Your task to perform on an android device: Empty the shopping cart on bestbuy.com. Search for "asus rog" on bestbuy.com, select the first entry, and add it to the cart. Image 0: 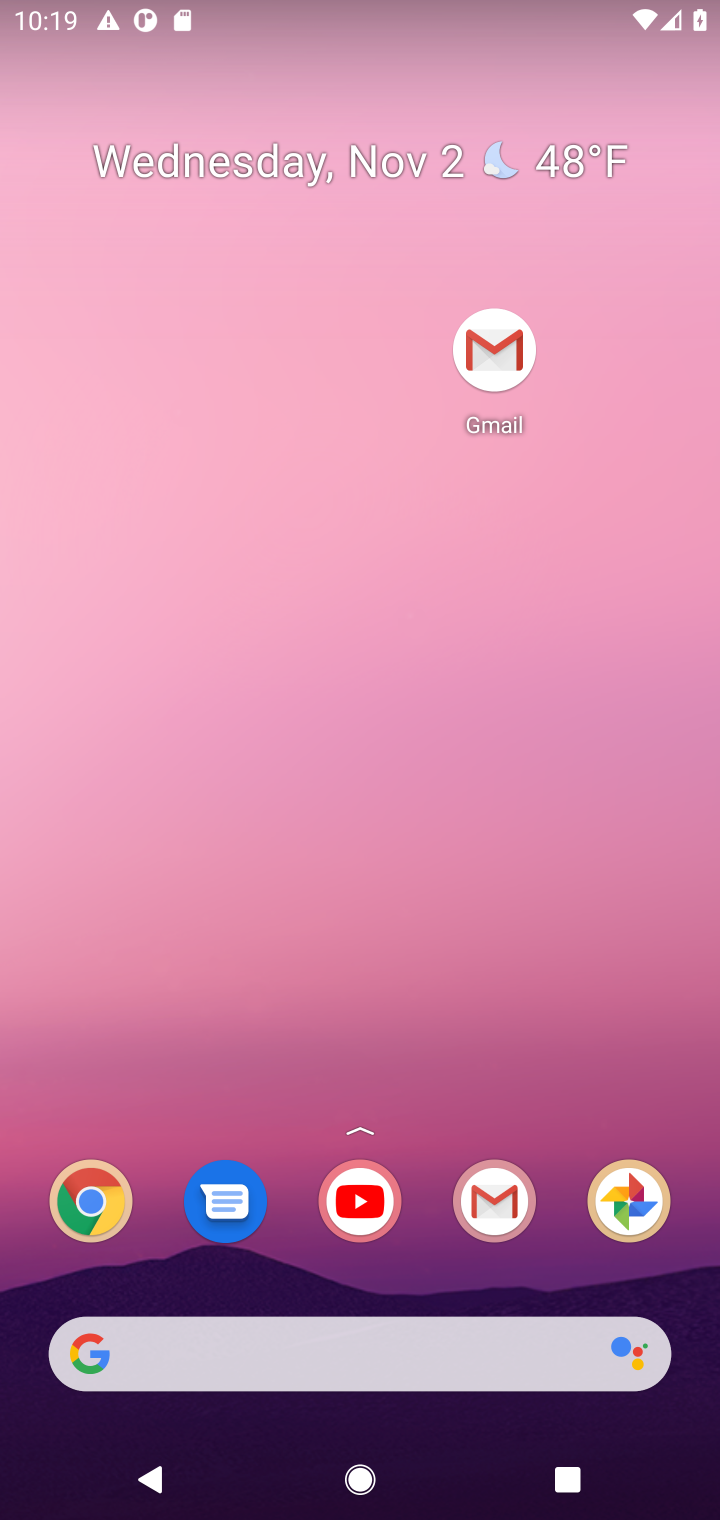
Step 0: drag from (423, 1276) to (303, 219)
Your task to perform on an android device: Empty the shopping cart on bestbuy.com. Search for "asus rog" on bestbuy.com, select the first entry, and add it to the cart. Image 1: 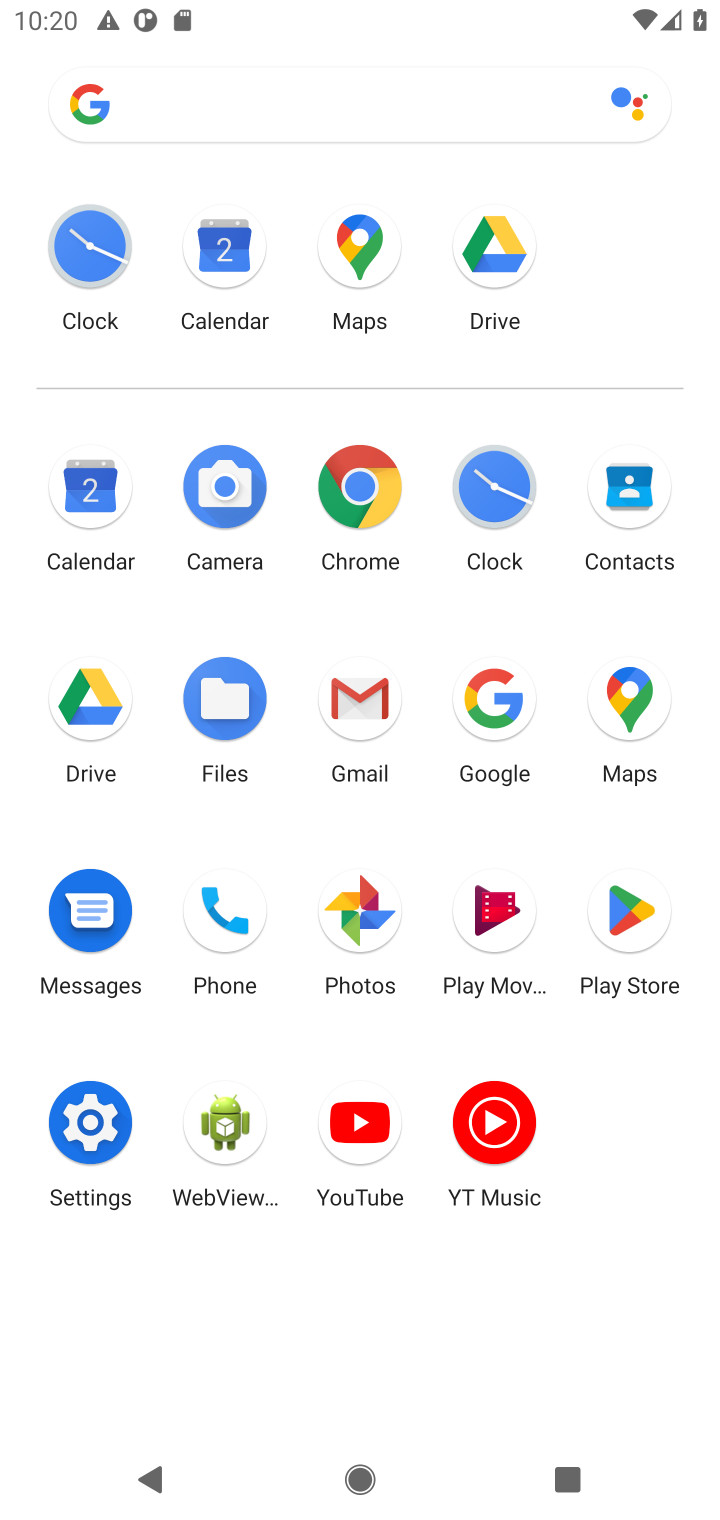
Step 1: click (366, 482)
Your task to perform on an android device: Empty the shopping cart on bestbuy.com. Search for "asus rog" on bestbuy.com, select the first entry, and add it to the cart. Image 2: 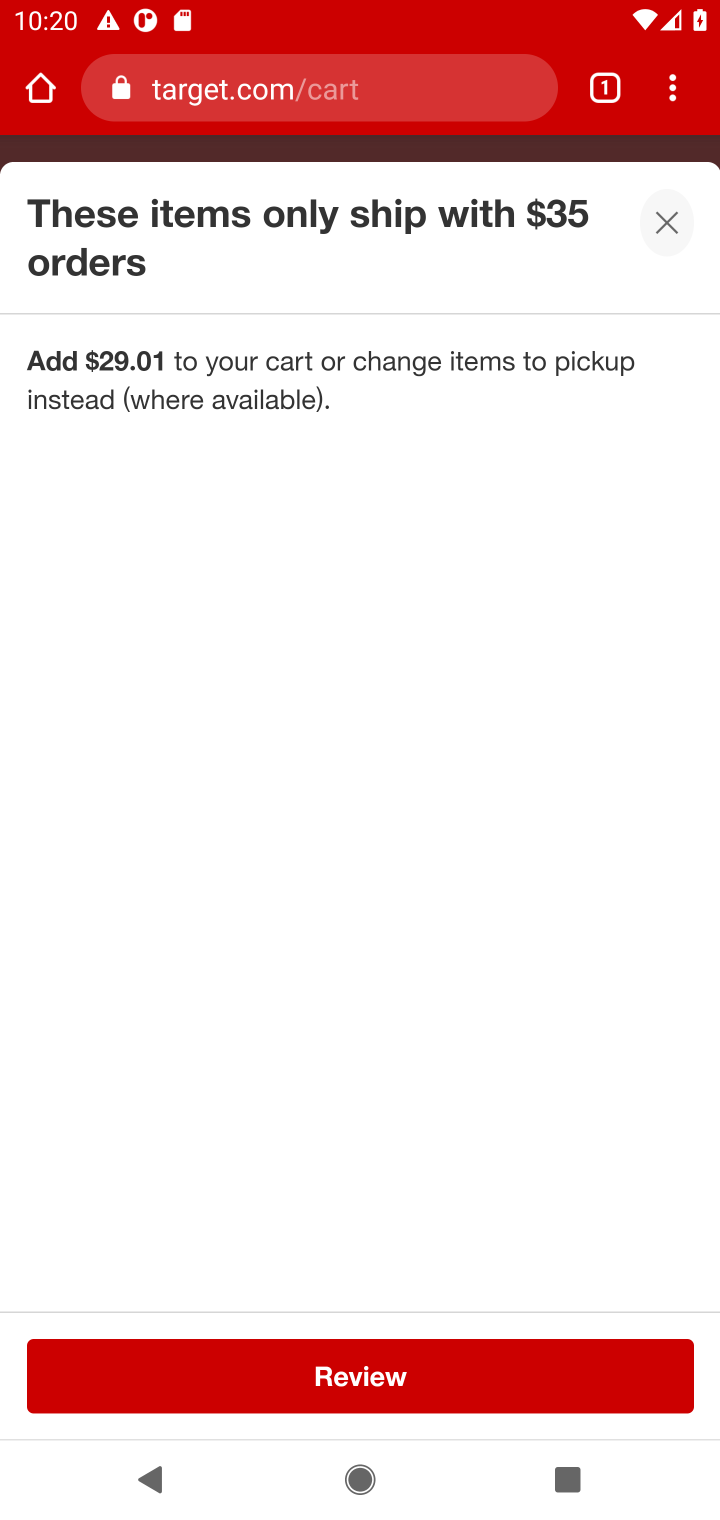
Step 2: click (350, 83)
Your task to perform on an android device: Empty the shopping cart on bestbuy.com. Search for "asus rog" on bestbuy.com, select the first entry, and add it to the cart. Image 3: 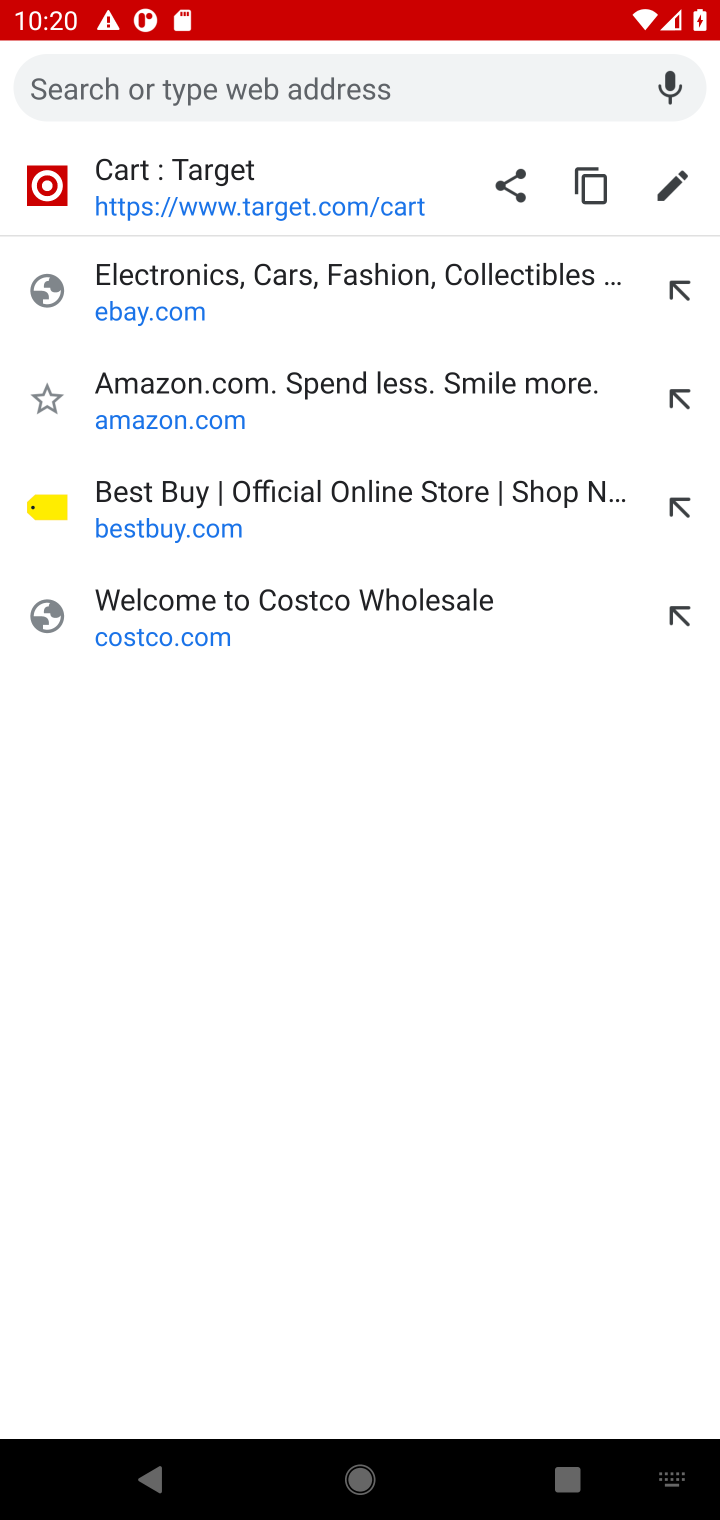
Step 3: type "bestbuy.com"
Your task to perform on an android device: Empty the shopping cart on bestbuy.com. Search for "asus rog" on bestbuy.com, select the first entry, and add it to the cart. Image 4: 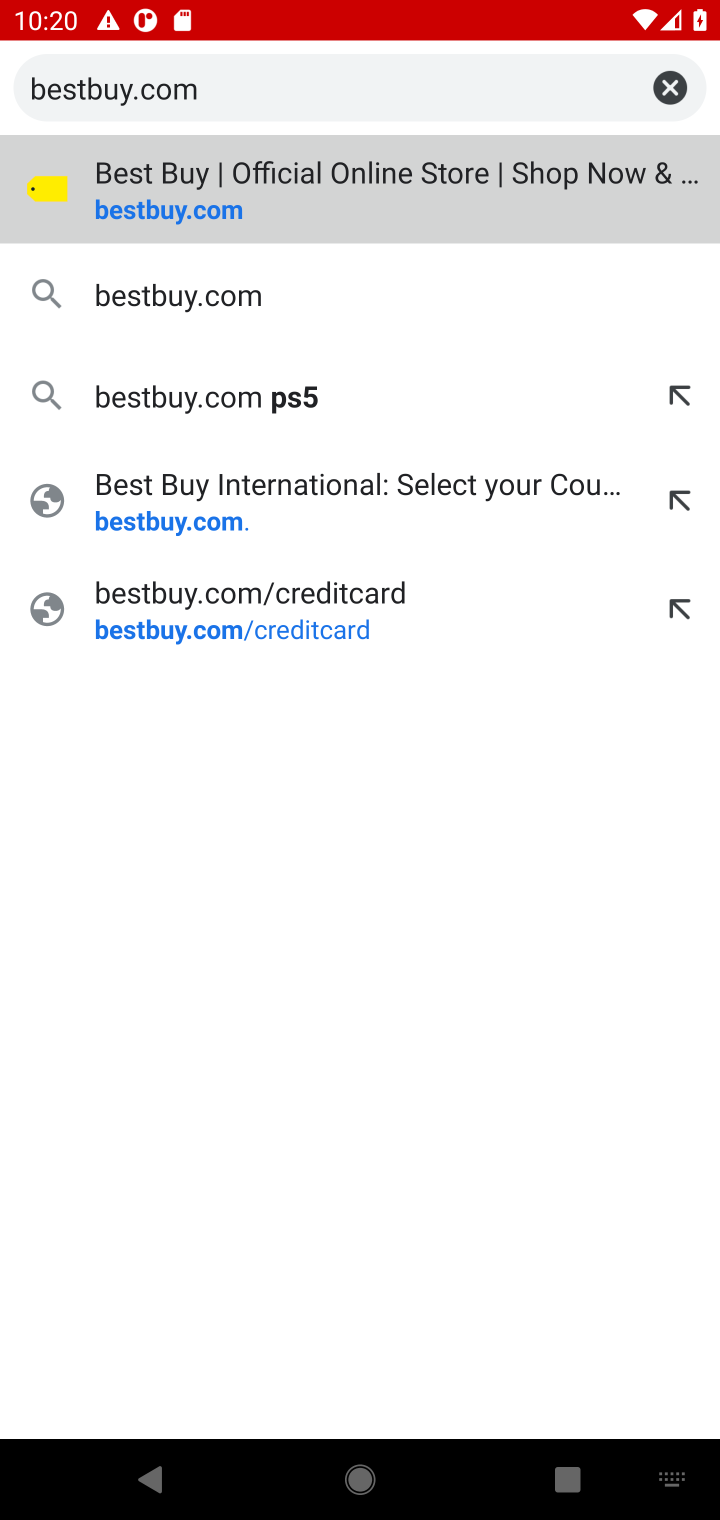
Step 4: press enter
Your task to perform on an android device: Empty the shopping cart on bestbuy.com. Search for "asus rog" on bestbuy.com, select the first entry, and add it to the cart. Image 5: 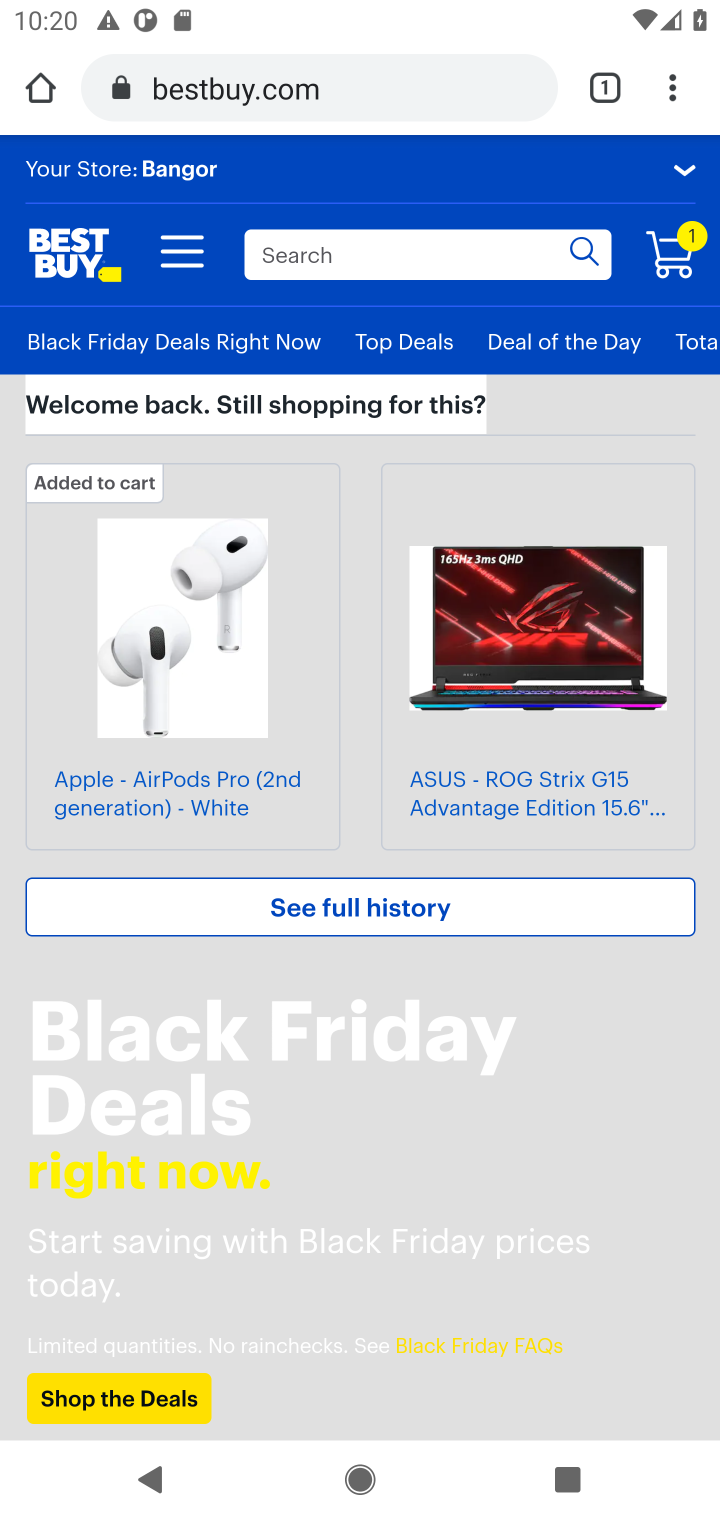
Step 5: click (430, 252)
Your task to perform on an android device: Empty the shopping cart on bestbuy.com. Search for "asus rog" on bestbuy.com, select the first entry, and add it to the cart. Image 6: 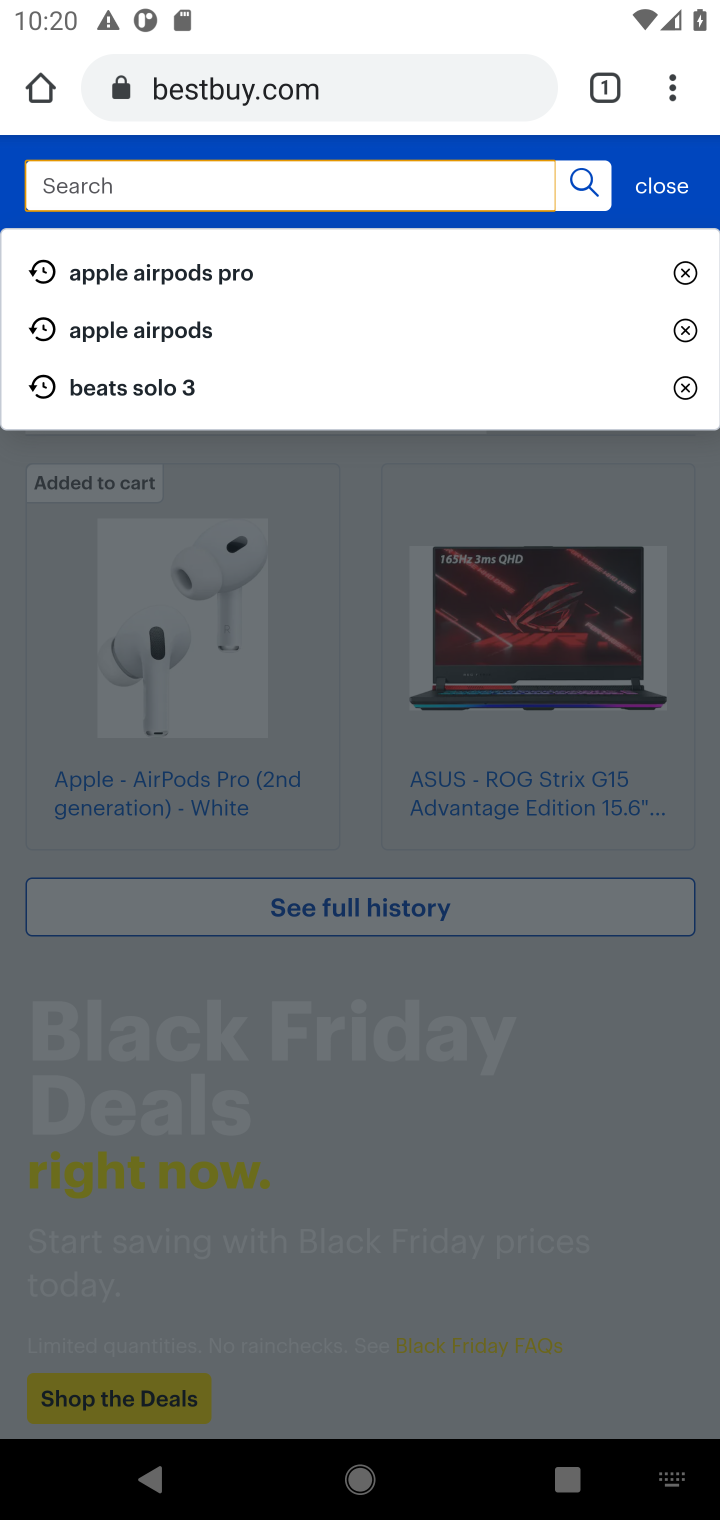
Step 6: type "asus rog"
Your task to perform on an android device: Empty the shopping cart on bestbuy.com. Search for "asus rog" on bestbuy.com, select the first entry, and add it to the cart. Image 7: 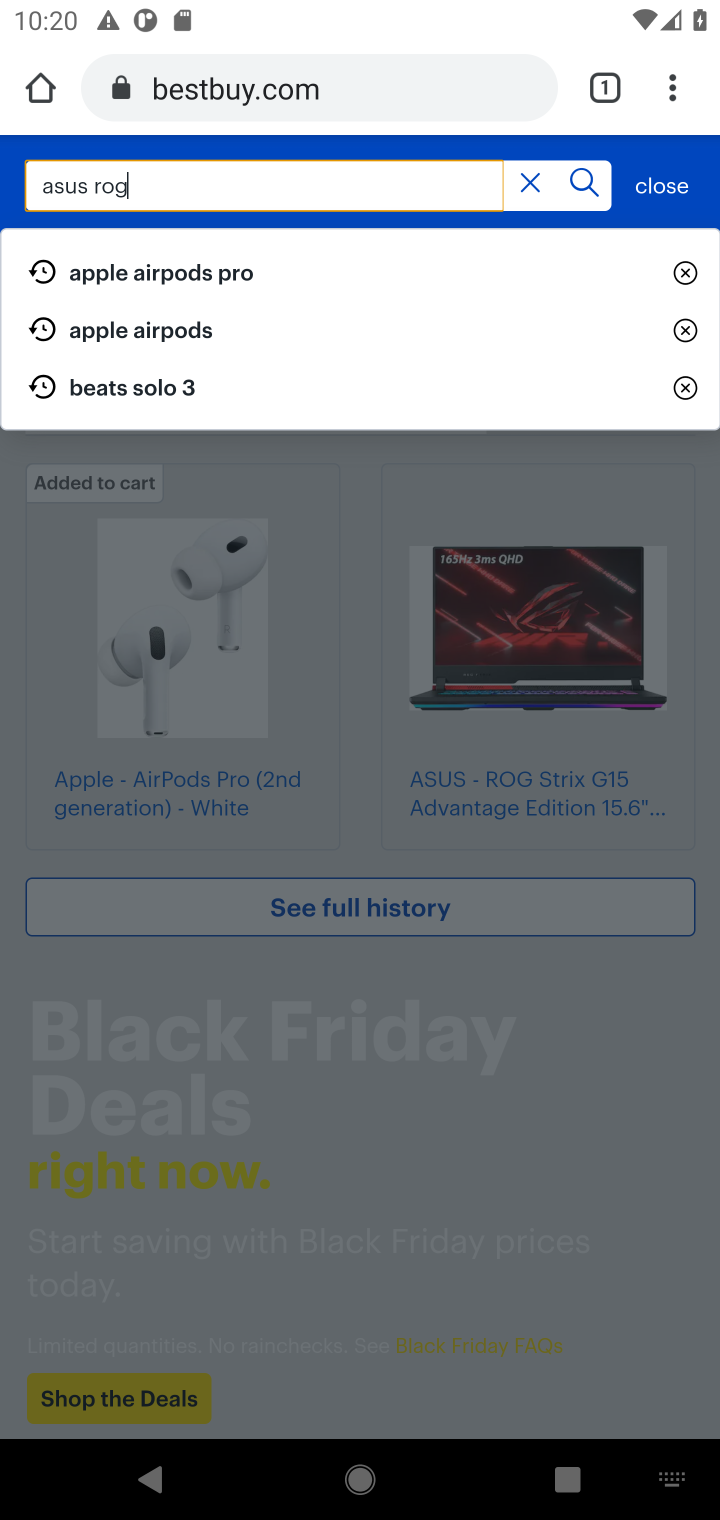
Step 7: press enter
Your task to perform on an android device: Empty the shopping cart on bestbuy.com. Search for "asus rog" on bestbuy.com, select the first entry, and add it to the cart. Image 8: 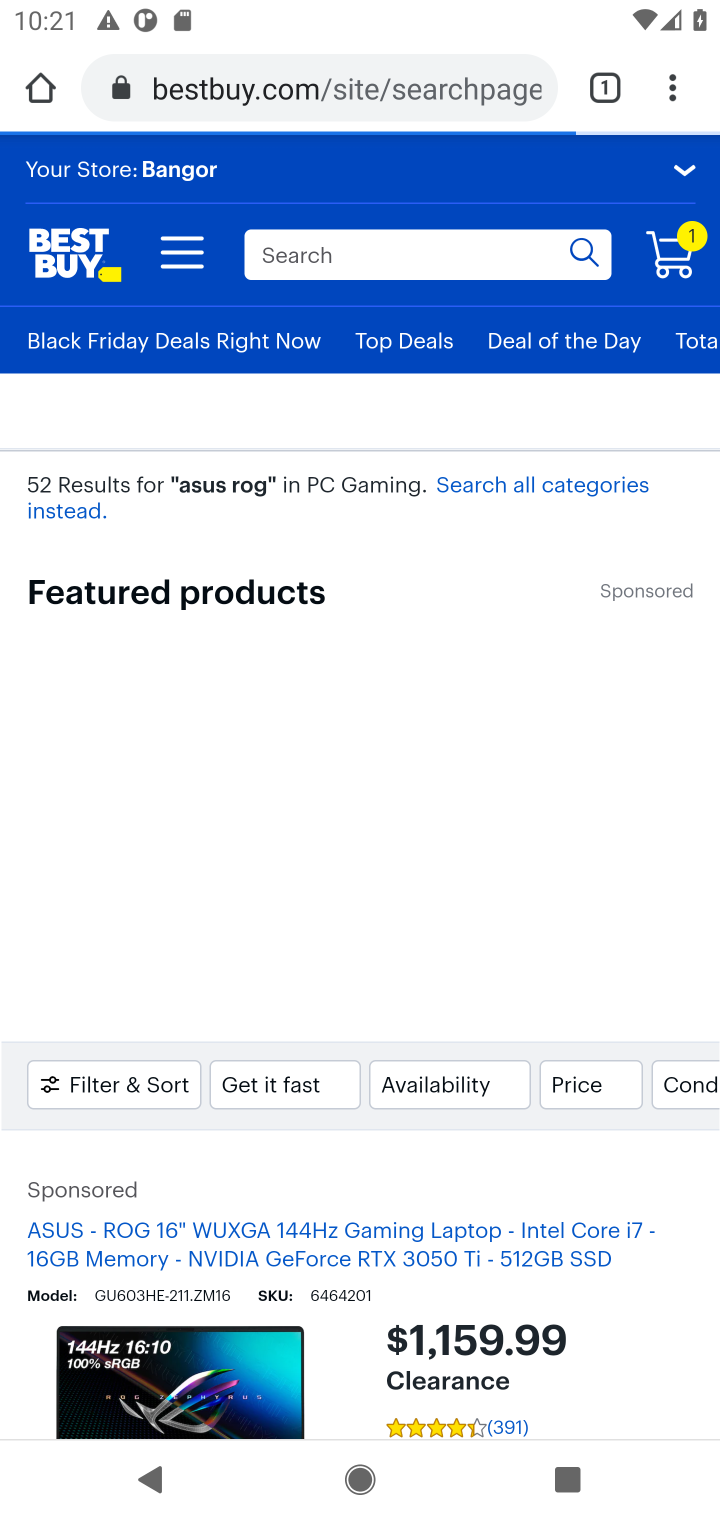
Step 8: drag from (392, 1200) to (436, 79)
Your task to perform on an android device: Empty the shopping cart on bestbuy.com. Search for "asus rog" on bestbuy.com, select the first entry, and add it to the cart. Image 9: 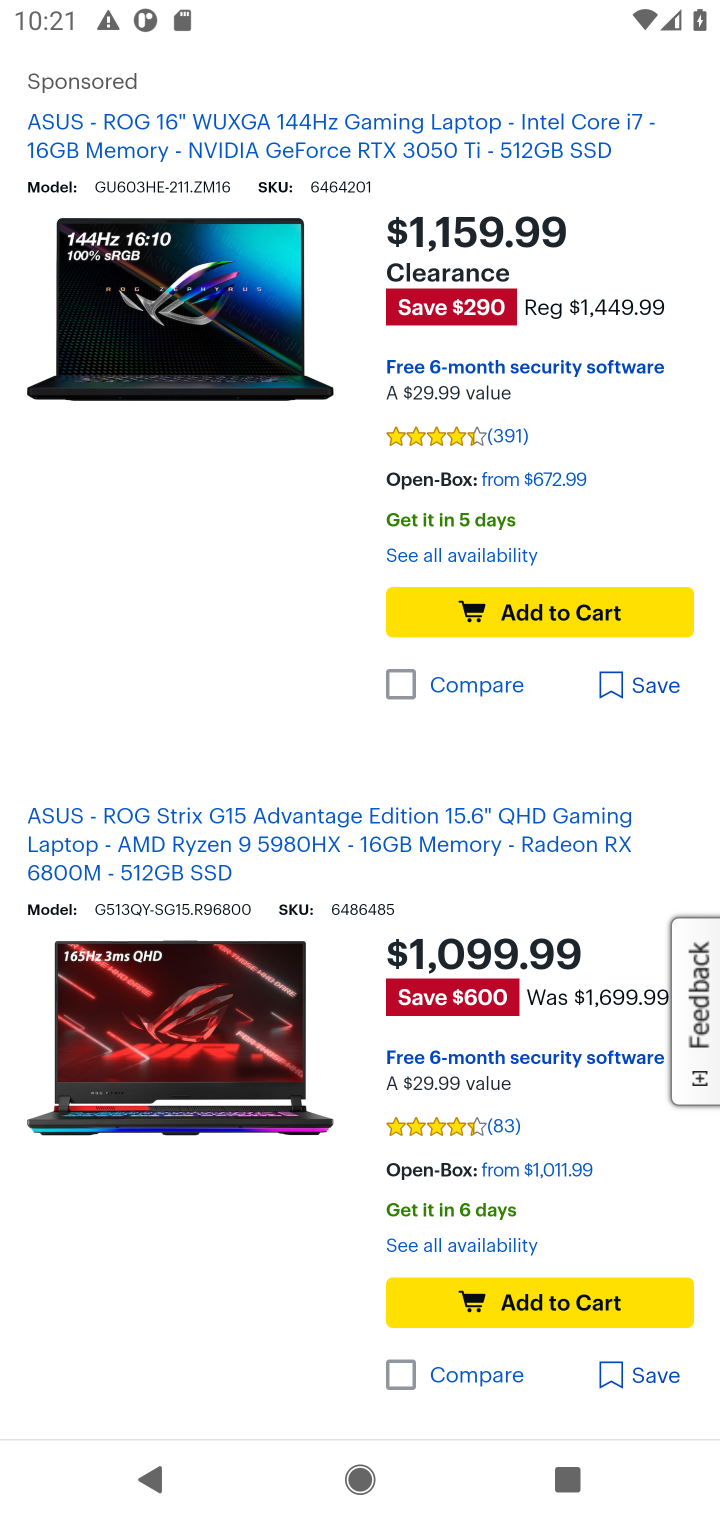
Step 9: drag from (233, 541) to (249, 397)
Your task to perform on an android device: Empty the shopping cart on bestbuy.com. Search for "asus rog" on bestbuy.com, select the first entry, and add it to the cart. Image 10: 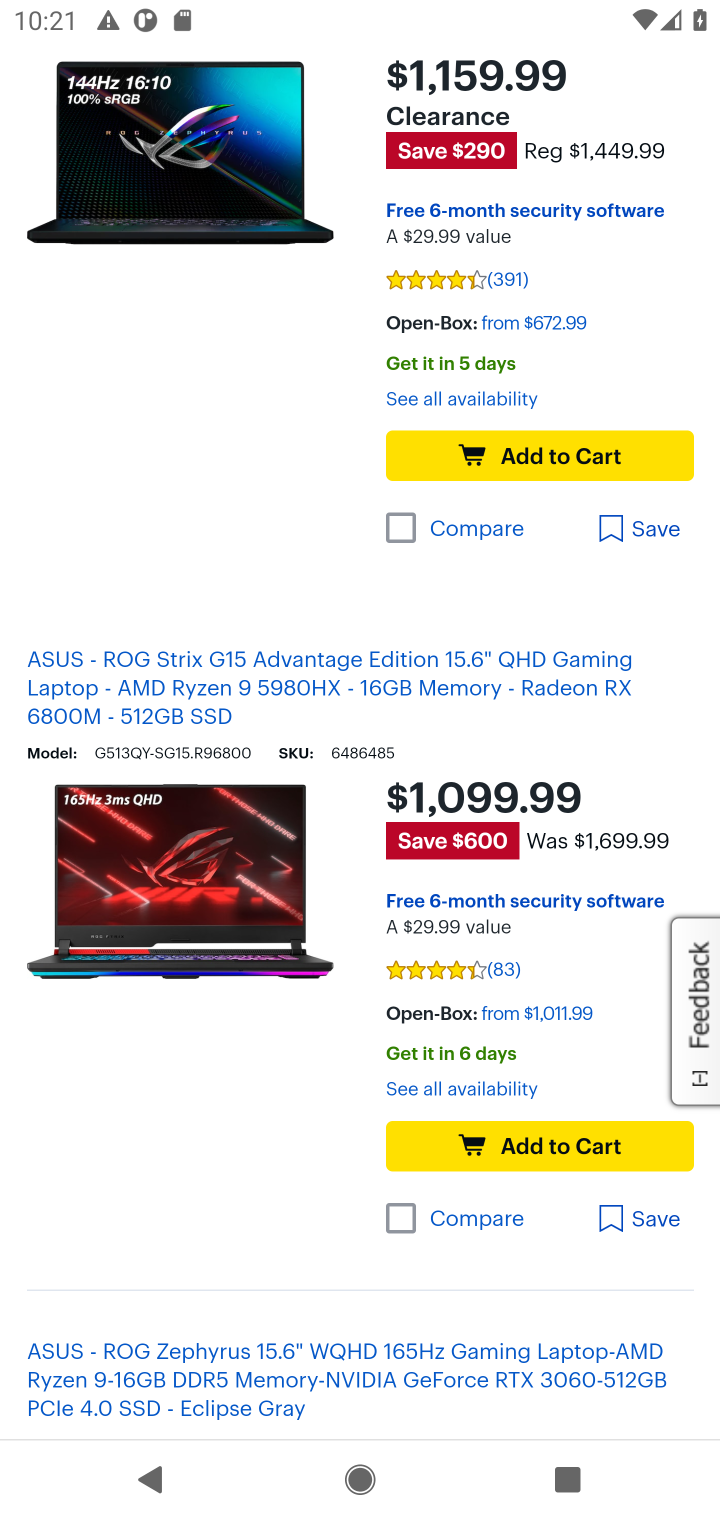
Step 10: click (589, 1143)
Your task to perform on an android device: Empty the shopping cart on bestbuy.com. Search for "asus rog" on bestbuy.com, select the first entry, and add it to the cart. Image 11: 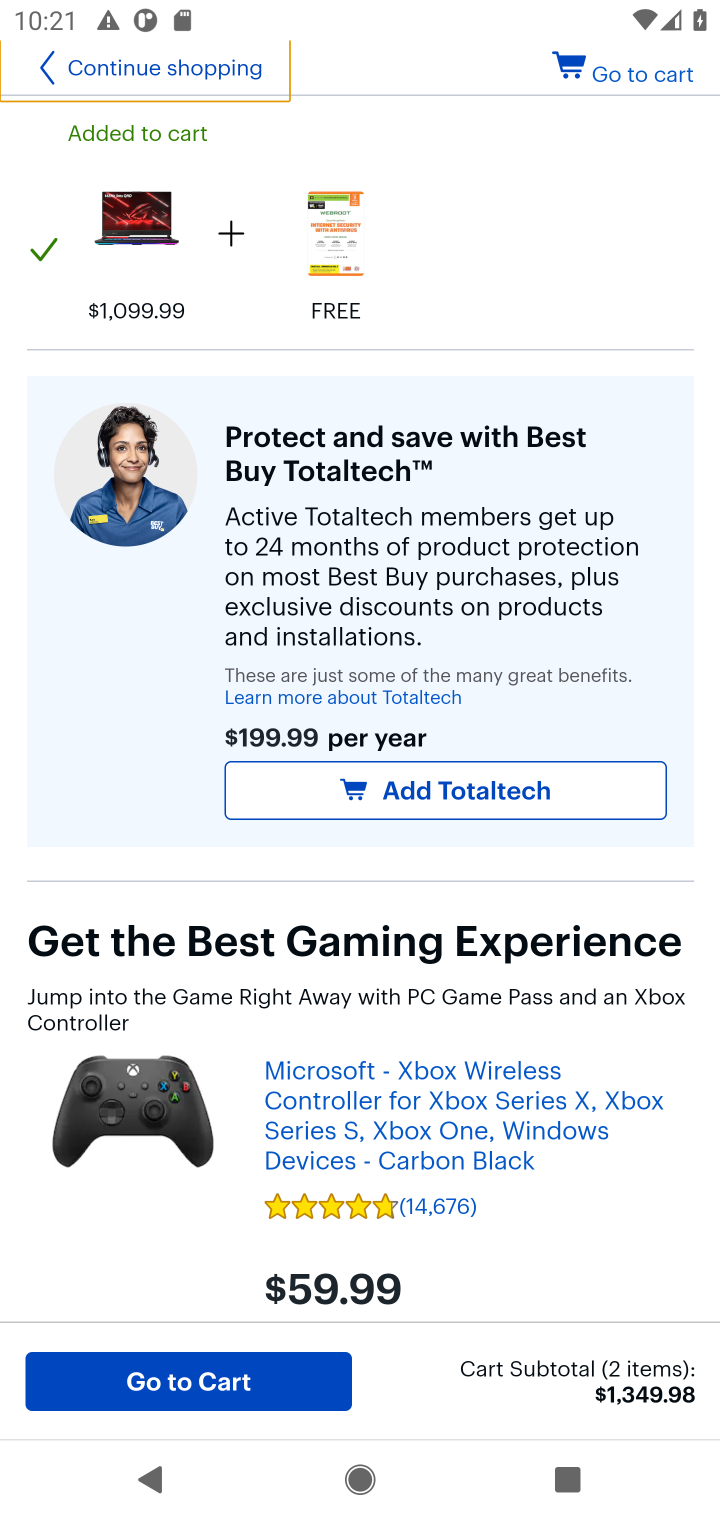
Step 11: task complete